Your task to perform on an android device: clear all cookies in the chrome app Image 0: 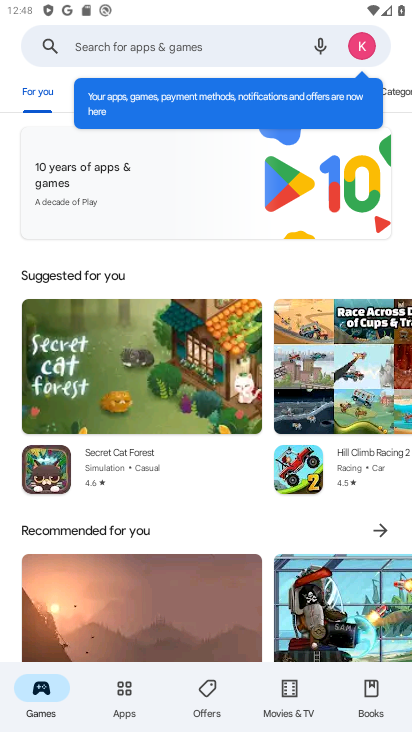
Step 0: press home button
Your task to perform on an android device: clear all cookies in the chrome app Image 1: 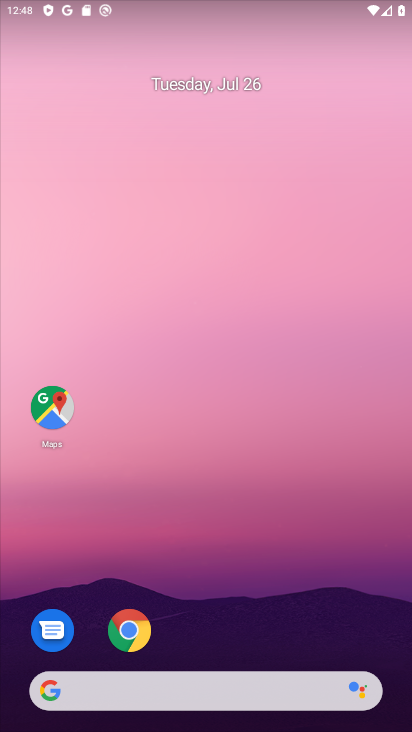
Step 1: click (126, 630)
Your task to perform on an android device: clear all cookies in the chrome app Image 2: 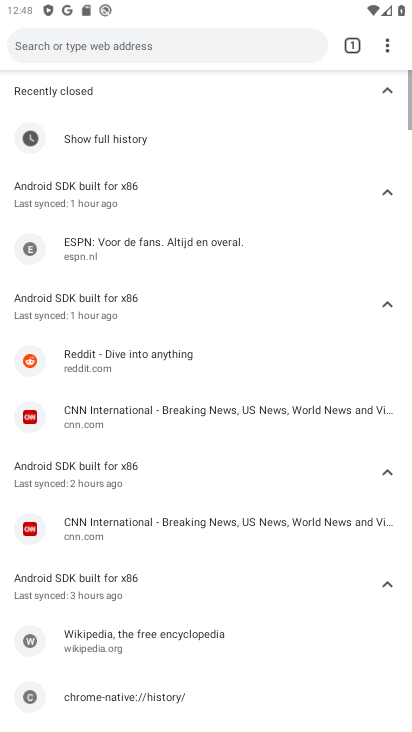
Step 2: click (387, 37)
Your task to perform on an android device: clear all cookies in the chrome app Image 3: 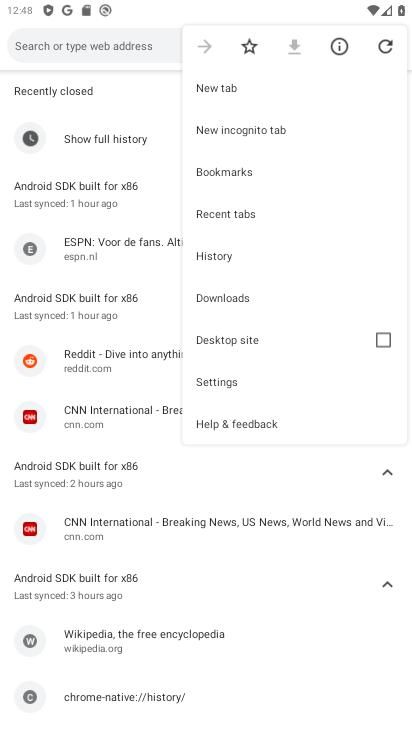
Step 3: click (219, 254)
Your task to perform on an android device: clear all cookies in the chrome app Image 4: 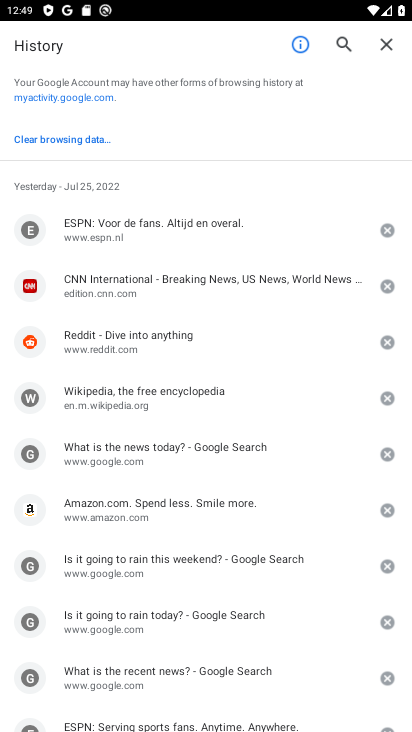
Step 4: click (91, 140)
Your task to perform on an android device: clear all cookies in the chrome app Image 5: 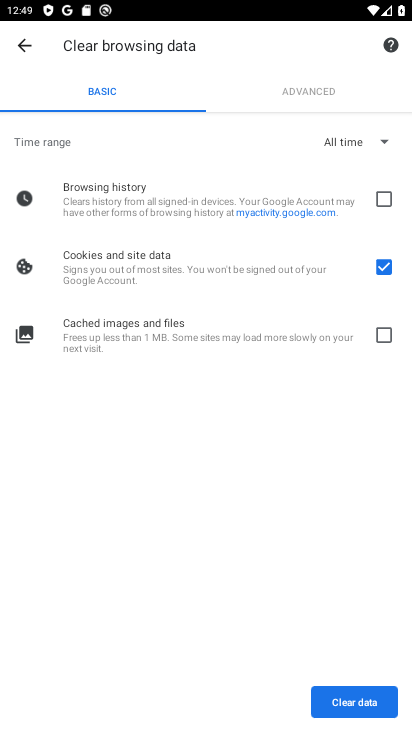
Step 5: click (348, 694)
Your task to perform on an android device: clear all cookies in the chrome app Image 6: 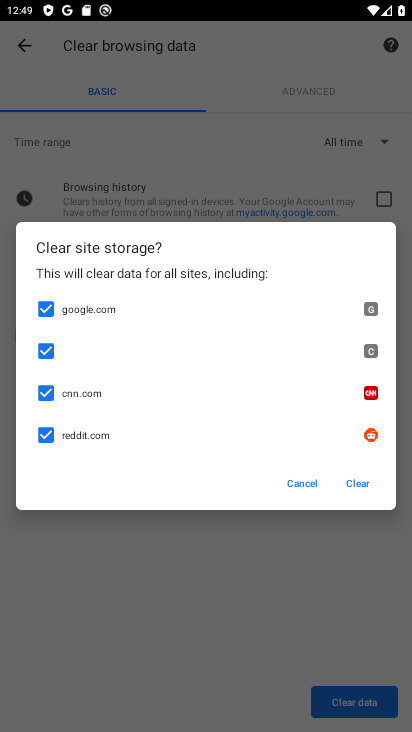
Step 6: click (364, 484)
Your task to perform on an android device: clear all cookies in the chrome app Image 7: 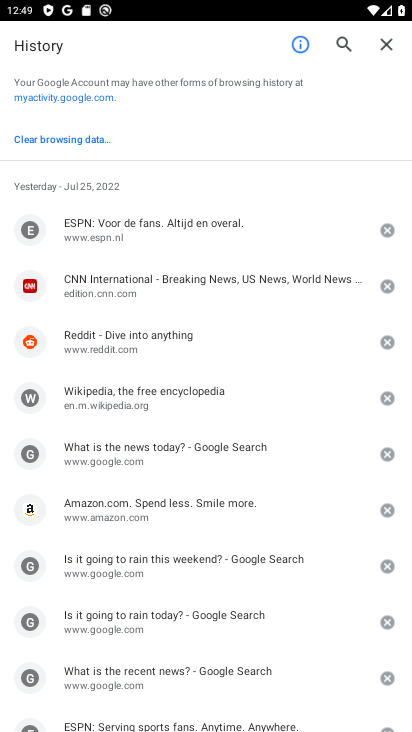
Step 7: task complete